Your task to perform on an android device: turn off wifi Image 0: 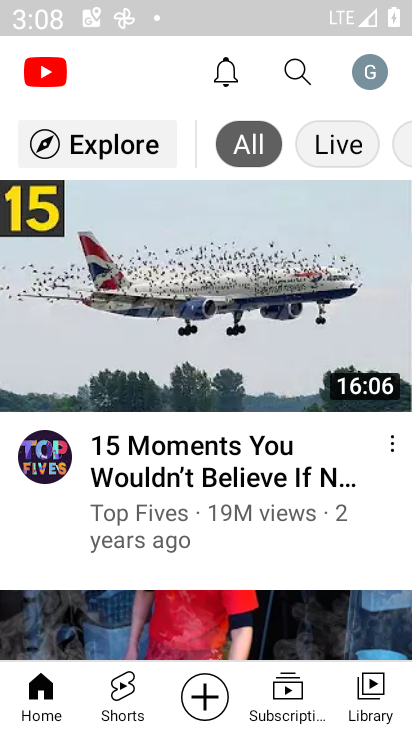
Step 0: press home button
Your task to perform on an android device: turn off wifi Image 1: 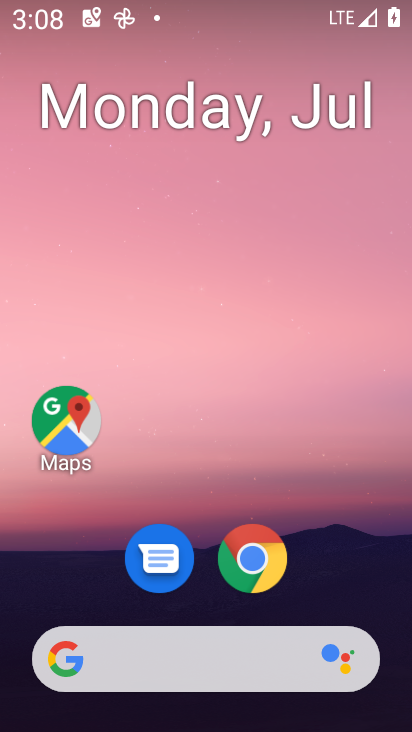
Step 1: drag from (361, 534) to (359, 60)
Your task to perform on an android device: turn off wifi Image 2: 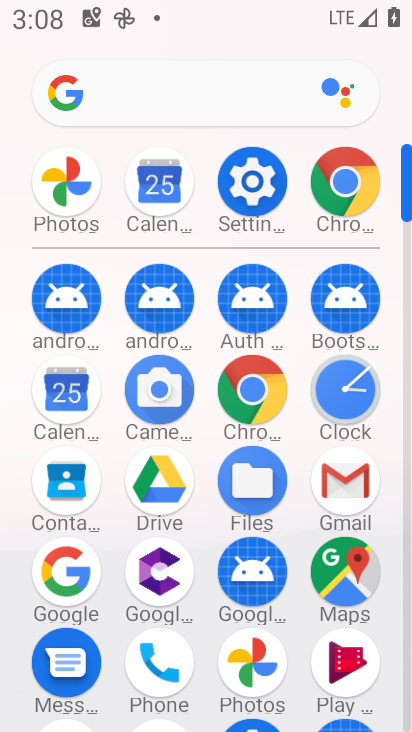
Step 2: click (257, 204)
Your task to perform on an android device: turn off wifi Image 3: 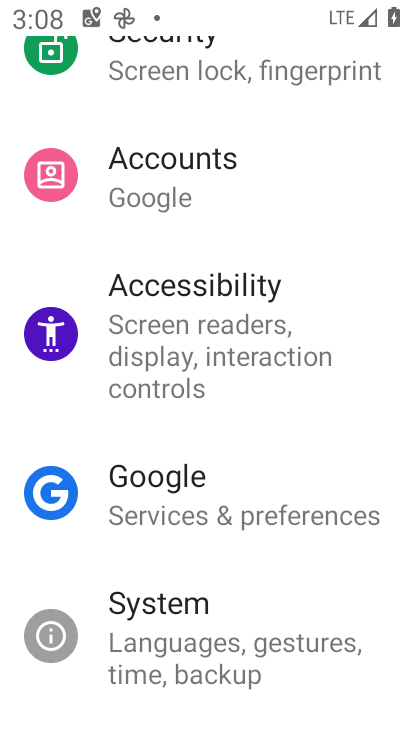
Step 3: drag from (357, 160) to (360, 369)
Your task to perform on an android device: turn off wifi Image 4: 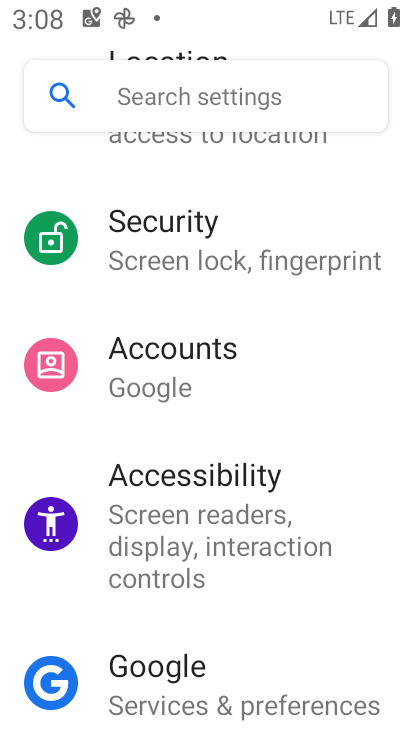
Step 4: drag from (349, 183) to (347, 382)
Your task to perform on an android device: turn off wifi Image 5: 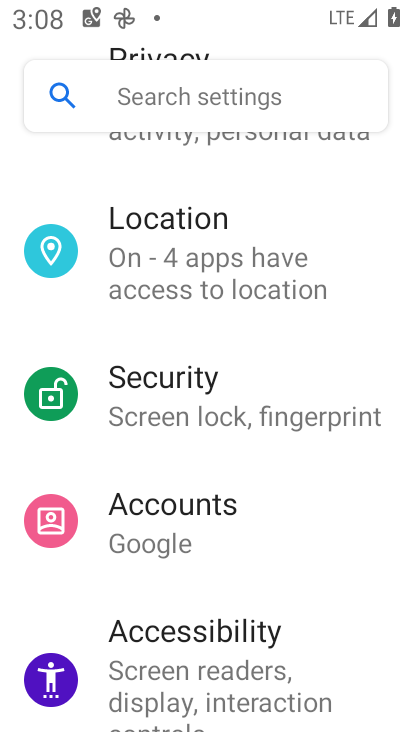
Step 5: drag from (347, 207) to (346, 399)
Your task to perform on an android device: turn off wifi Image 6: 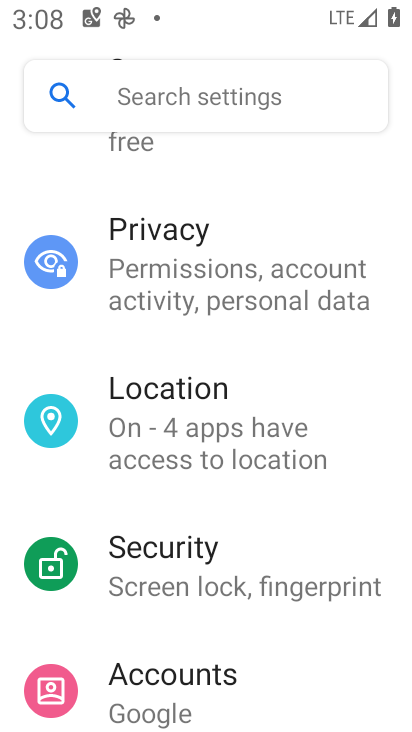
Step 6: drag from (360, 196) to (353, 378)
Your task to perform on an android device: turn off wifi Image 7: 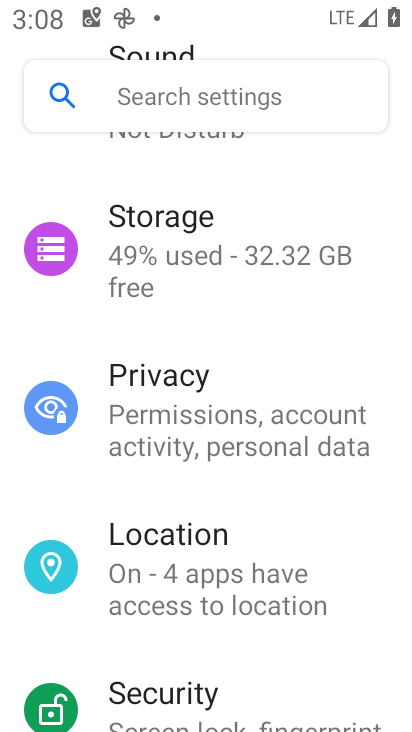
Step 7: drag from (371, 178) to (371, 342)
Your task to perform on an android device: turn off wifi Image 8: 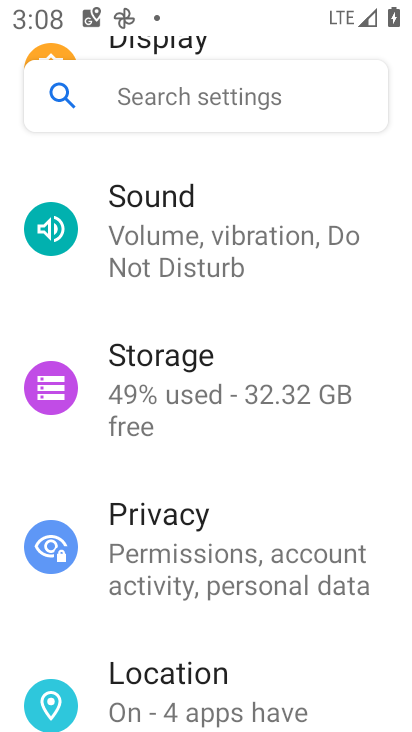
Step 8: drag from (362, 164) to (361, 323)
Your task to perform on an android device: turn off wifi Image 9: 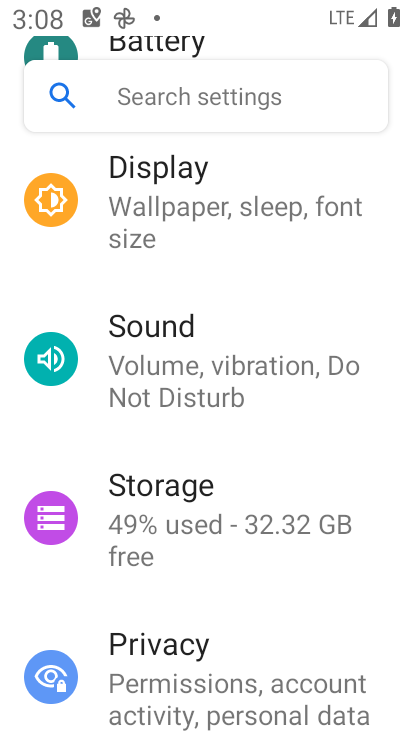
Step 9: drag from (374, 159) to (368, 342)
Your task to perform on an android device: turn off wifi Image 10: 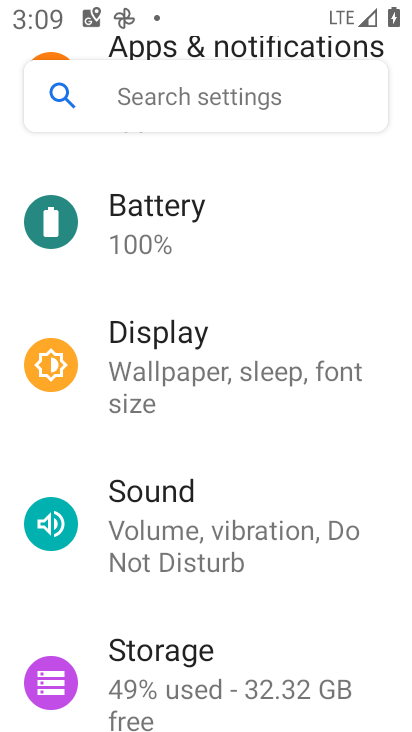
Step 10: drag from (373, 191) to (357, 355)
Your task to perform on an android device: turn off wifi Image 11: 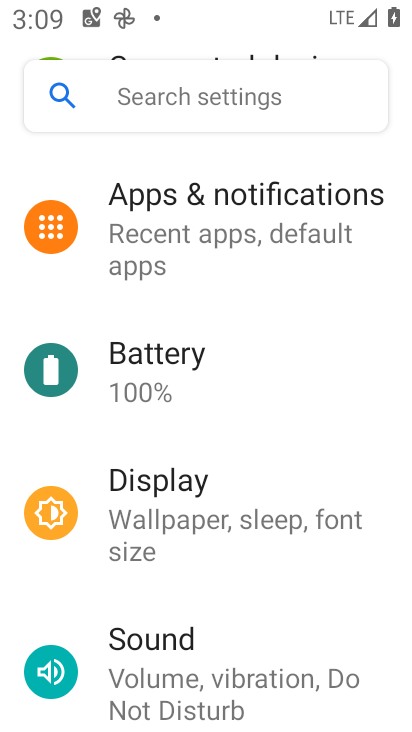
Step 11: drag from (345, 264) to (310, 493)
Your task to perform on an android device: turn off wifi Image 12: 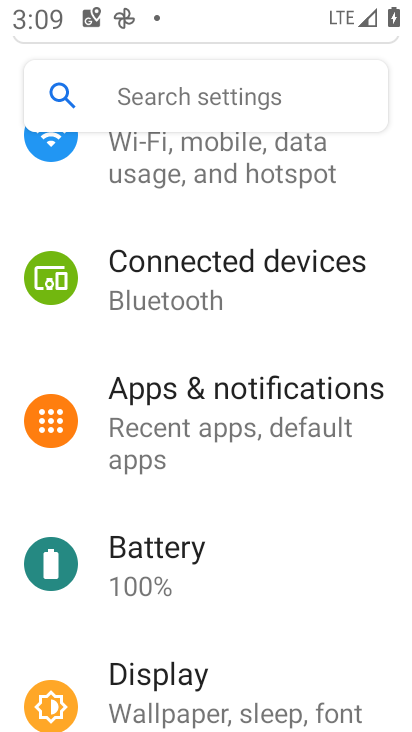
Step 12: drag from (355, 175) to (355, 418)
Your task to perform on an android device: turn off wifi Image 13: 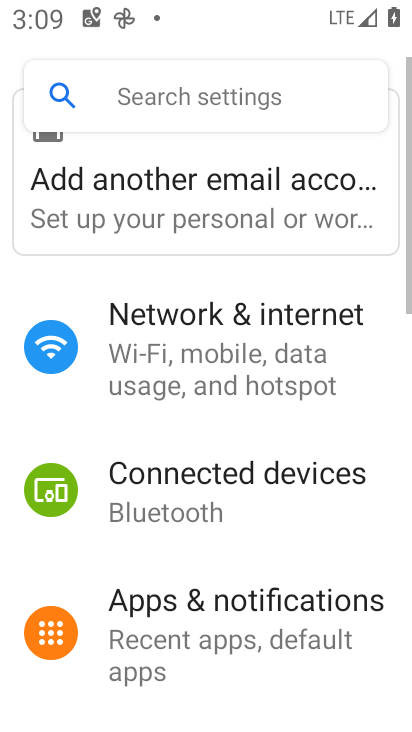
Step 13: click (303, 354)
Your task to perform on an android device: turn off wifi Image 14: 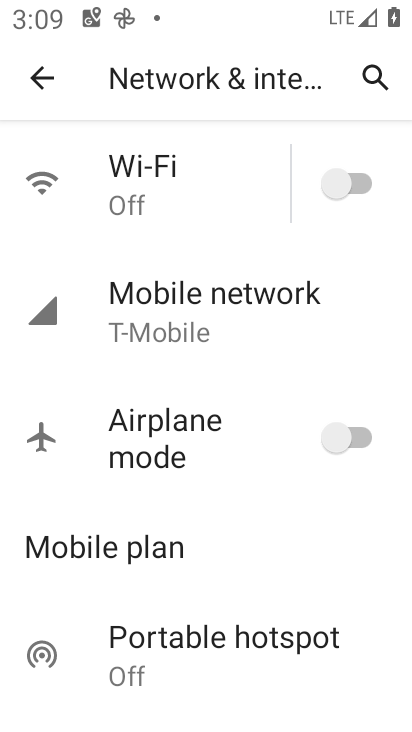
Step 14: task complete